Your task to perform on an android device: Go to Yahoo.com Image 0: 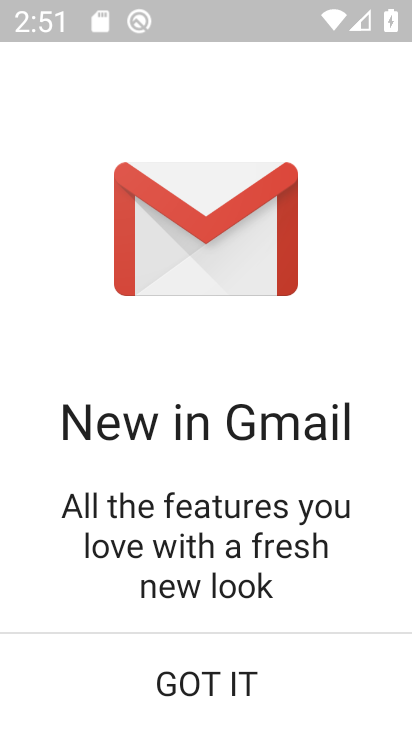
Step 0: drag from (347, 489) to (314, 262)
Your task to perform on an android device: Go to Yahoo.com Image 1: 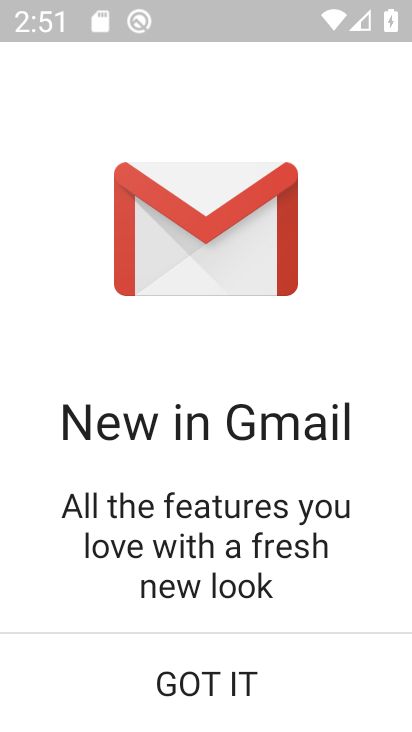
Step 1: press home button
Your task to perform on an android device: Go to Yahoo.com Image 2: 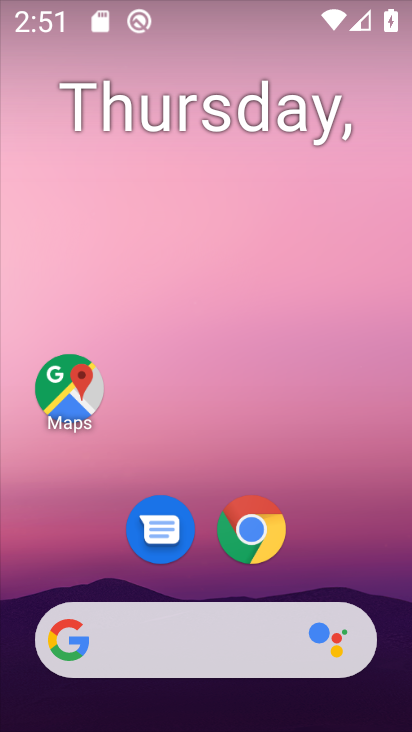
Step 2: drag from (364, 598) to (331, 44)
Your task to perform on an android device: Go to Yahoo.com Image 3: 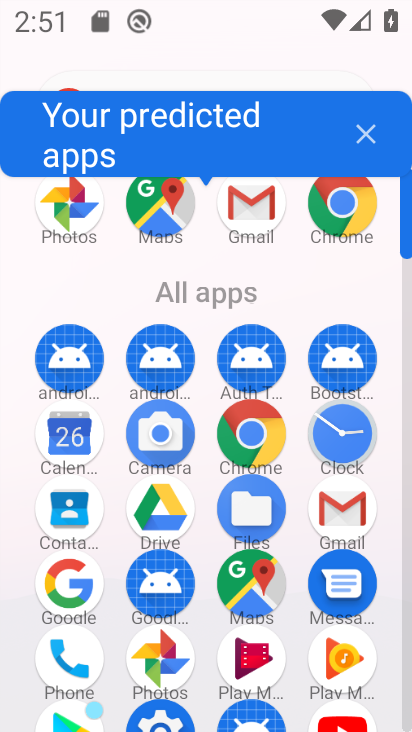
Step 3: drag from (289, 324) to (300, 126)
Your task to perform on an android device: Go to Yahoo.com Image 4: 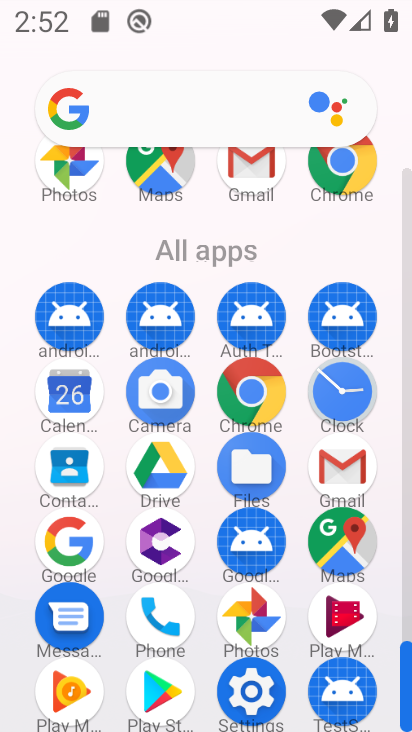
Step 4: drag from (402, 6) to (262, 389)
Your task to perform on an android device: Go to Yahoo.com Image 5: 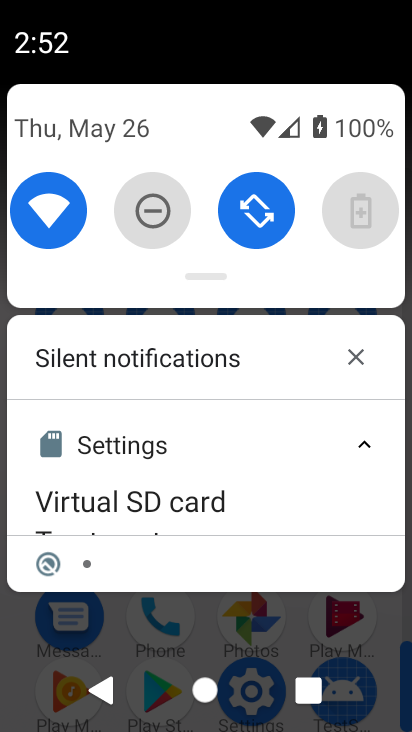
Step 5: drag from (288, 575) to (263, 26)
Your task to perform on an android device: Go to Yahoo.com Image 6: 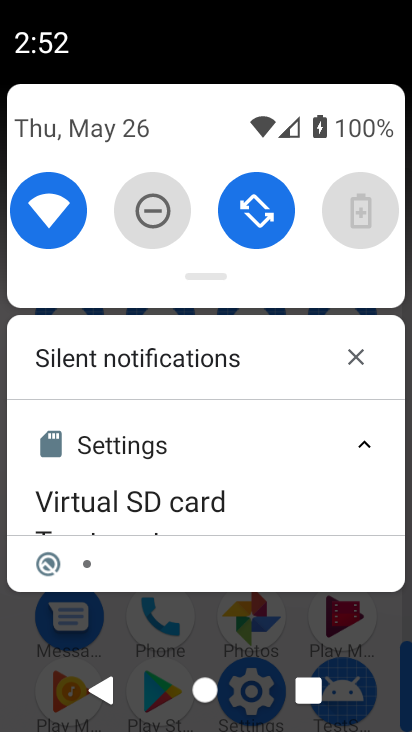
Step 6: press back button
Your task to perform on an android device: Go to Yahoo.com Image 7: 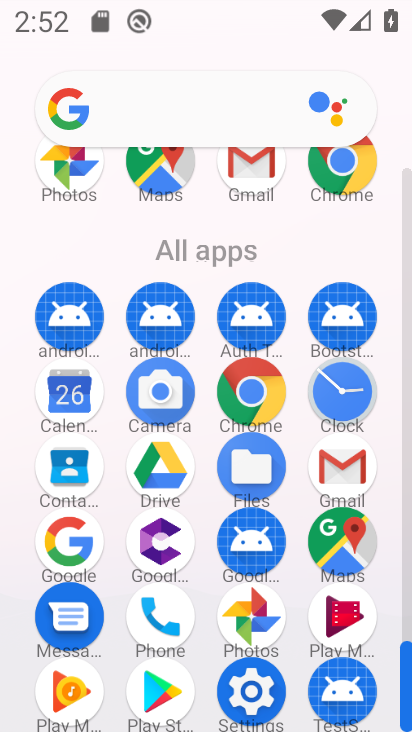
Step 7: click (260, 398)
Your task to perform on an android device: Go to Yahoo.com Image 8: 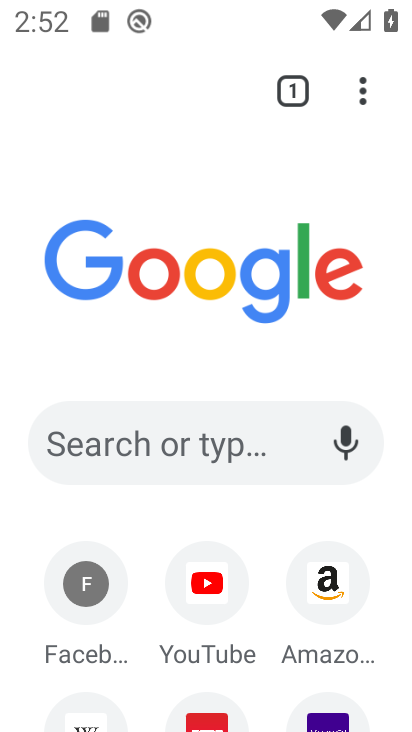
Step 8: drag from (277, 527) to (269, 291)
Your task to perform on an android device: Go to Yahoo.com Image 9: 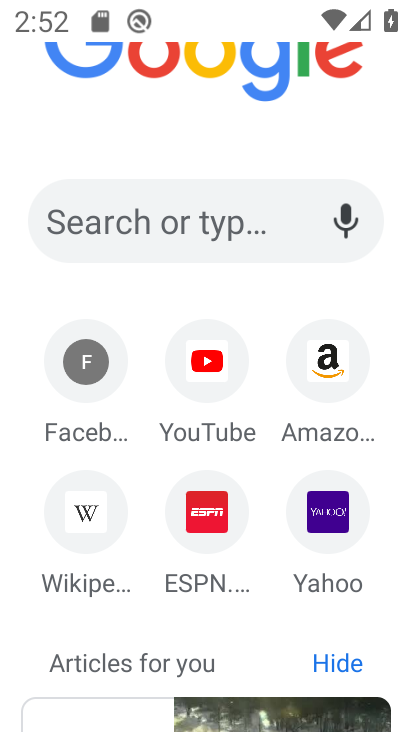
Step 9: click (334, 525)
Your task to perform on an android device: Go to Yahoo.com Image 10: 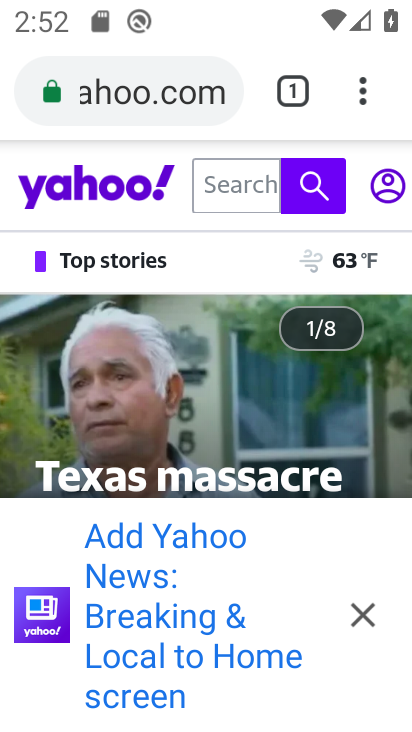
Step 10: task complete